Your task to perform on an android device: View the shopping cart on target.com. Search for macbook pro 13 inch on target.com, select the first entry, and add it to the cart. Image 0: 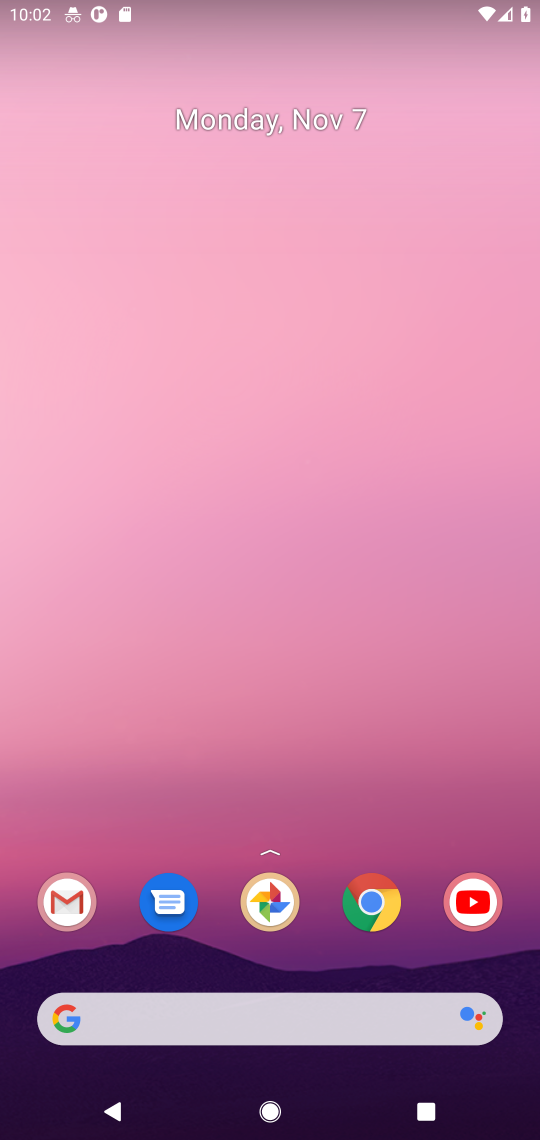
Step 0: click (382, 911)
Your task to perform on an android device: View the shopping cart on target.com. Search for macbook pro 13 inch on target.com, select the first entry, and add it to the cart. Image 1: 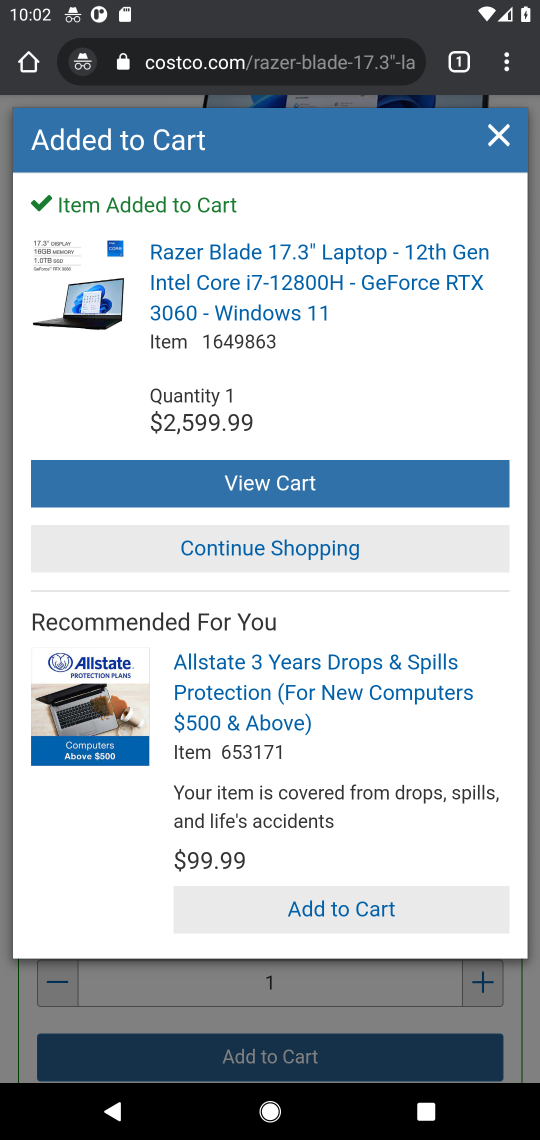
Step 1: click (274, 68)
Your task to perform on an android device: View the shopping cart on target.com. Search for macbook pro 13 inch on target.com, select the first entry, and add it to the cart. Image 2: 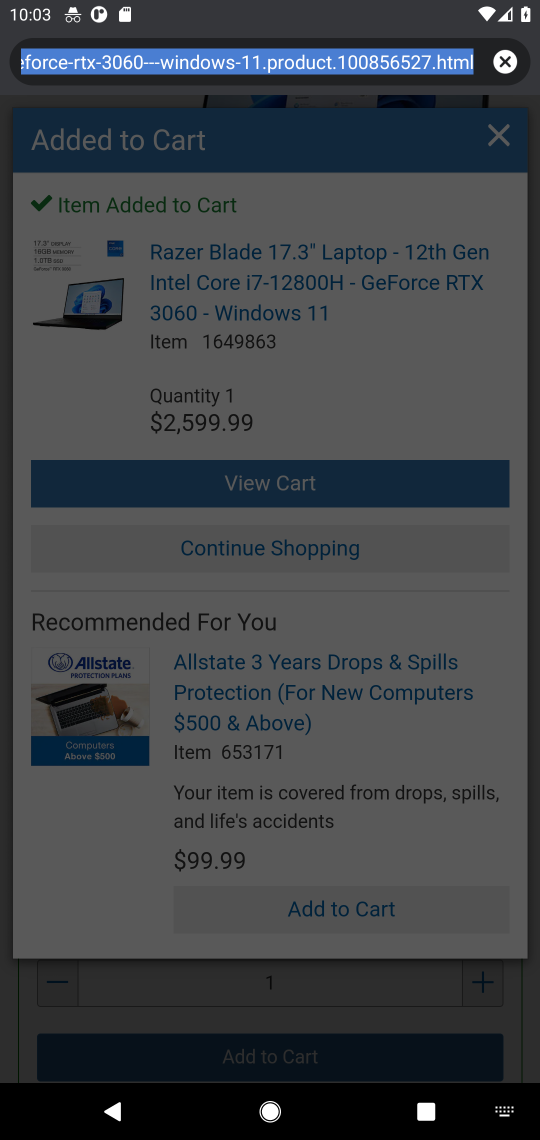
Step 2: type "target.com"
Your task to perform on an android device: View the shopping cart on target.com. Search for macbook pro 13 inch on target.com, select the first entry, and add it to the cart. Image 3: 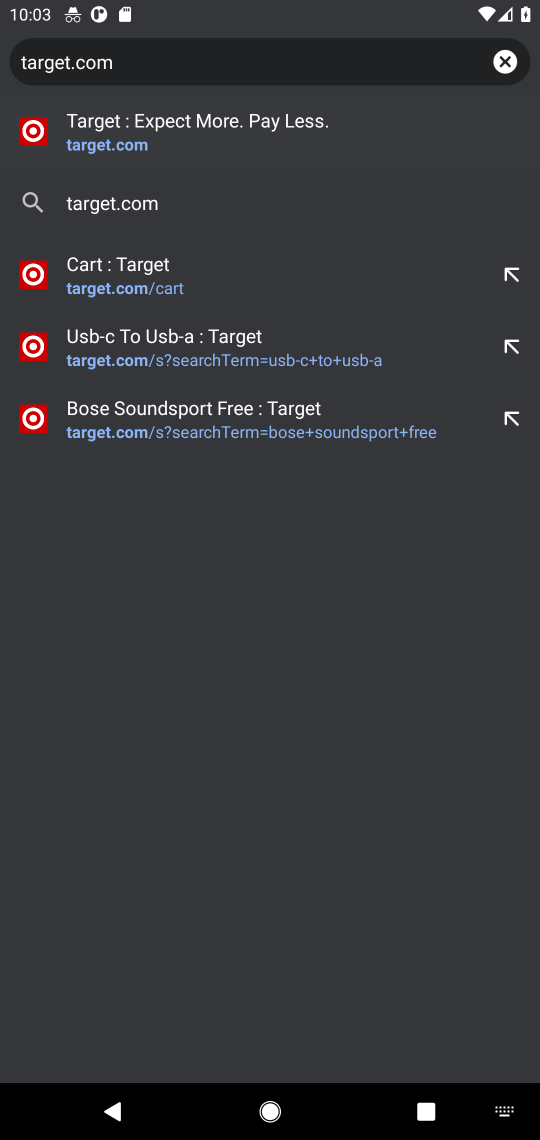
Step 3: click (96, 144)
Your task to perform on an android device: View the shopping cart on target.com. Search for macbook pro 13 inch on target.com, select the first entry, and add it to the cart. Image 4: 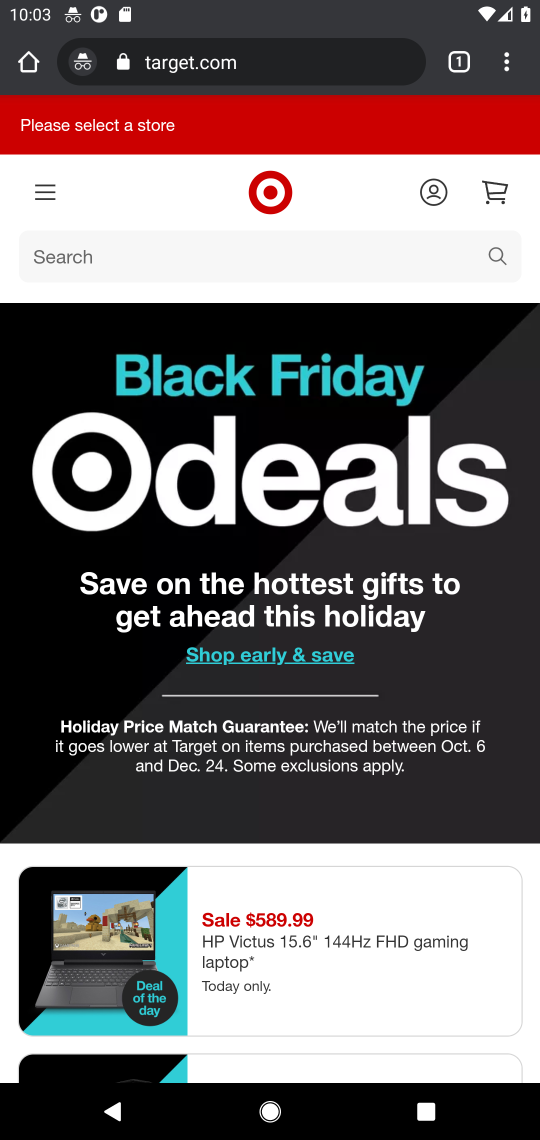
Step 4: click (489, 190)
Your task to perform on an android device: View the shopping cart on target.com. Search for macbook pro 13 inch on target.com, select the first entry, and add it to the cart. Image 5: 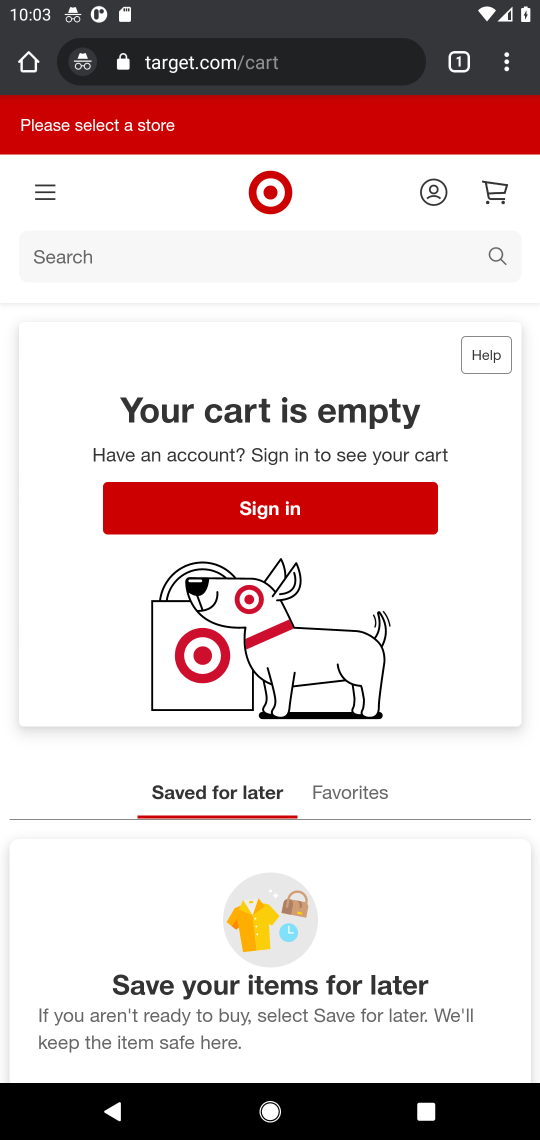
Step 5: click (500, 258)
Your task to perform on an android device: View the shopping cart on target.com. Search for macbook pro 13 inch on target.com, select the first entry, and add it to the cart. Image 6: 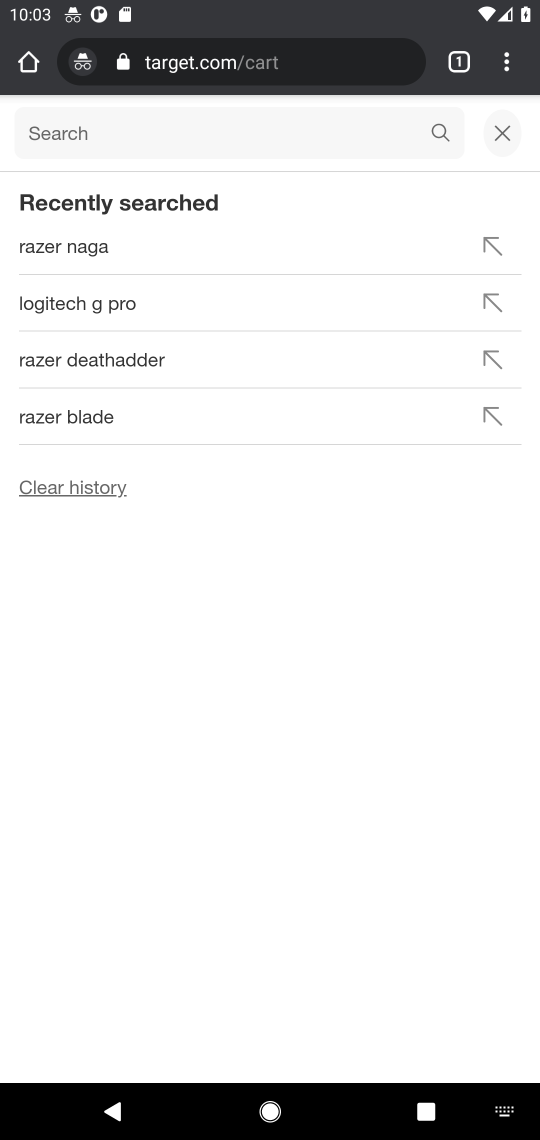
Step 6: type " macbook pro 13 inch"
Your task to perform on an android device: View the shopping cart on target.com. Search for macbook pro 13 inch on target.com, select the first entry, and add it to the cart. Image 7: 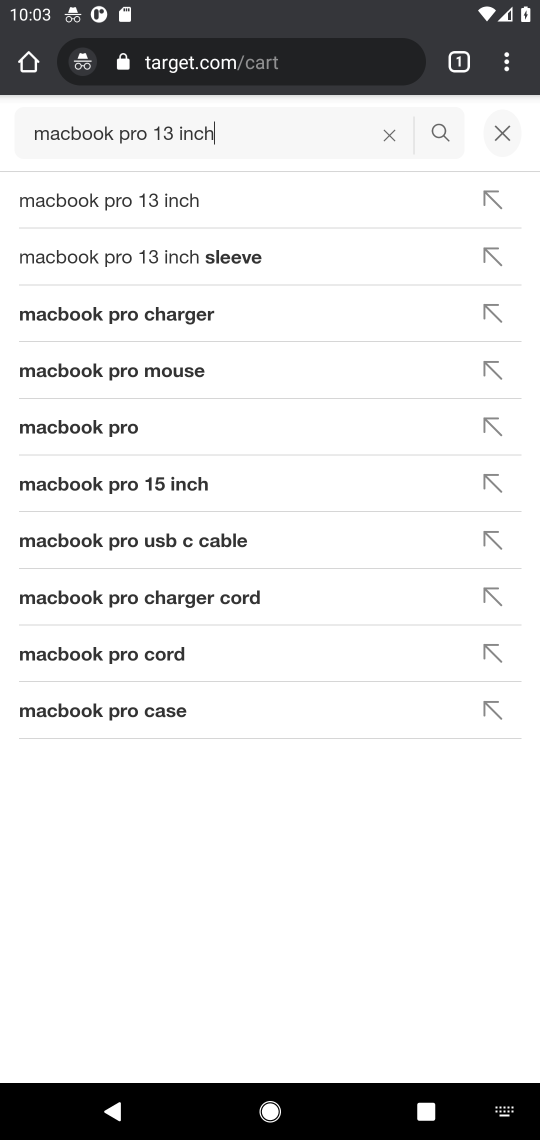
Step 7: click (160, 210)
Your task to perform on an android device: View the shopping cart on target.com. Search for macbook pro 13 inch on target.com, select the first entry, and add it to the cart. Image 8: 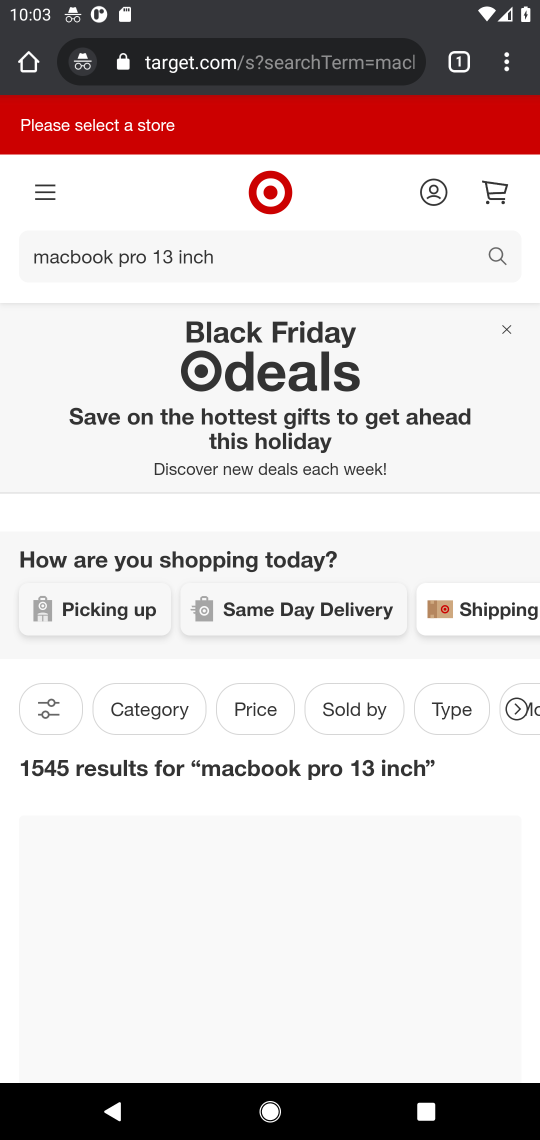
Step 8: drag from (227, 883) to (201, 456)
Your task to perform on an android device: View the shopping cart on target.com. Search for macbook pro 13 inch on target.com, select the first entry, and add it to the cart. Image 9: 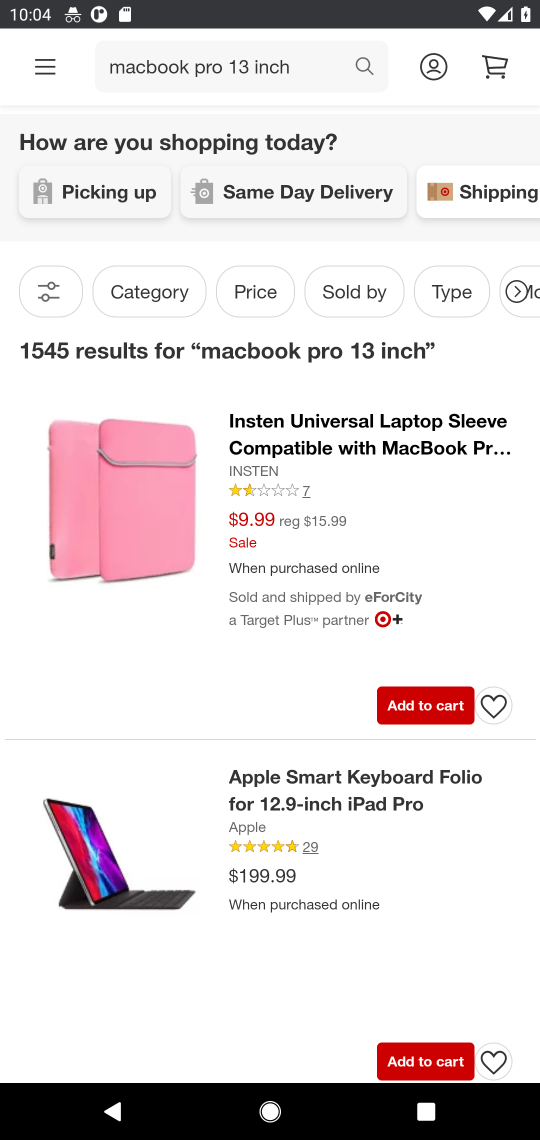
Step 9: click (165, 514)
Your task to perform on an android device: View the shopping cart on target.com. Search for macbook pro 13 inch on target.com, select the first entry, and add it to the cart. Image 10: 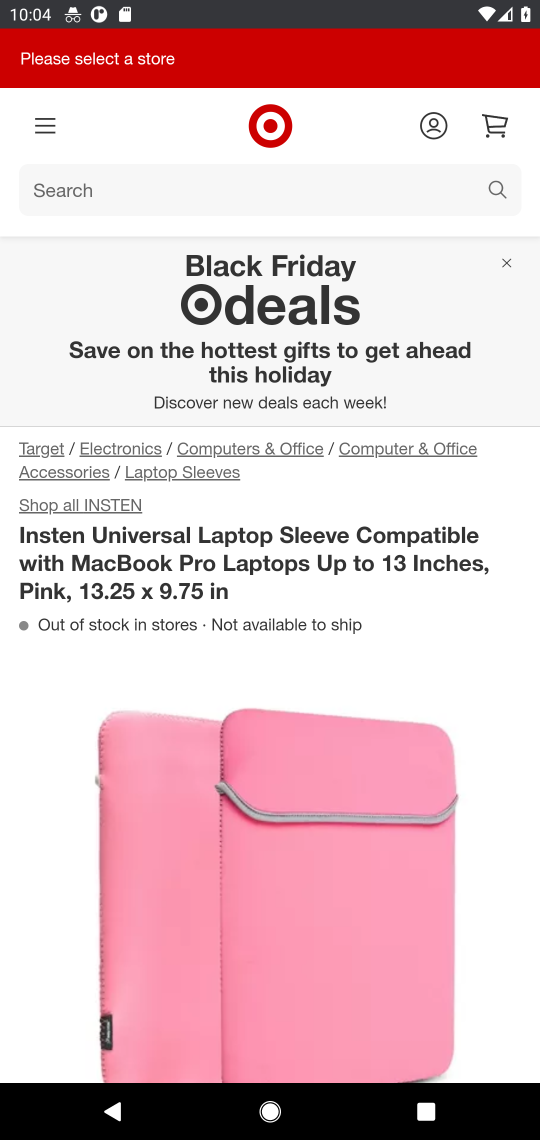
Step 10: drag from (188, 790) to (183, 555)
Your task to perform on an android device: View the shopping cart on target.com. Search for macbook pro 13 inch on target.com, select the first entry, and add it to the cart. Image 11: 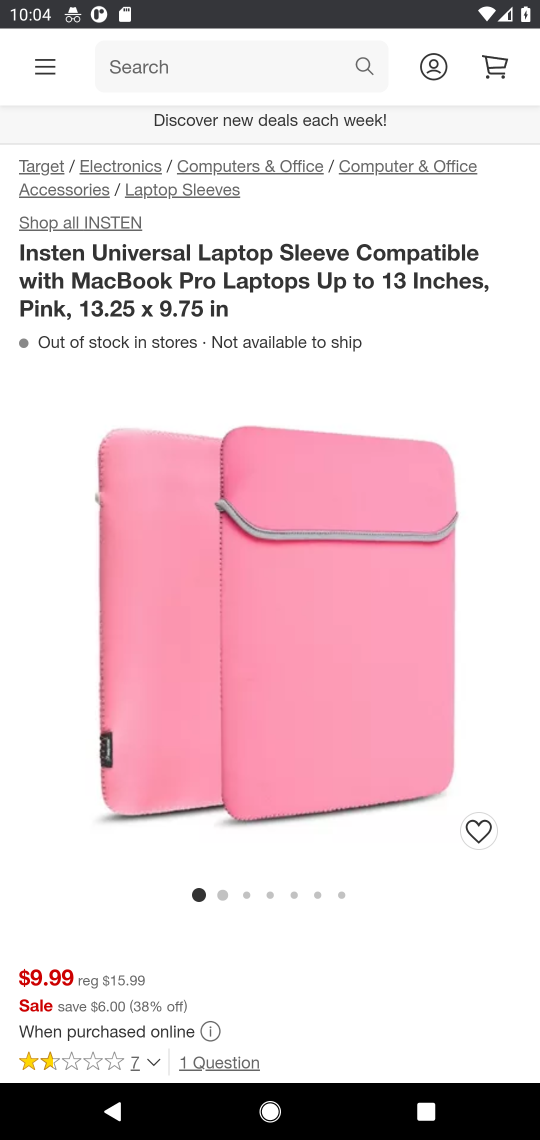
Step 11: drag from (223, 910) to (220, 647)
Your task to perform on an android device: View the shopping cart on target.com. Search for macbook pro 13 inch on target.com, select the first entry, and add it to the cart. Image 12: 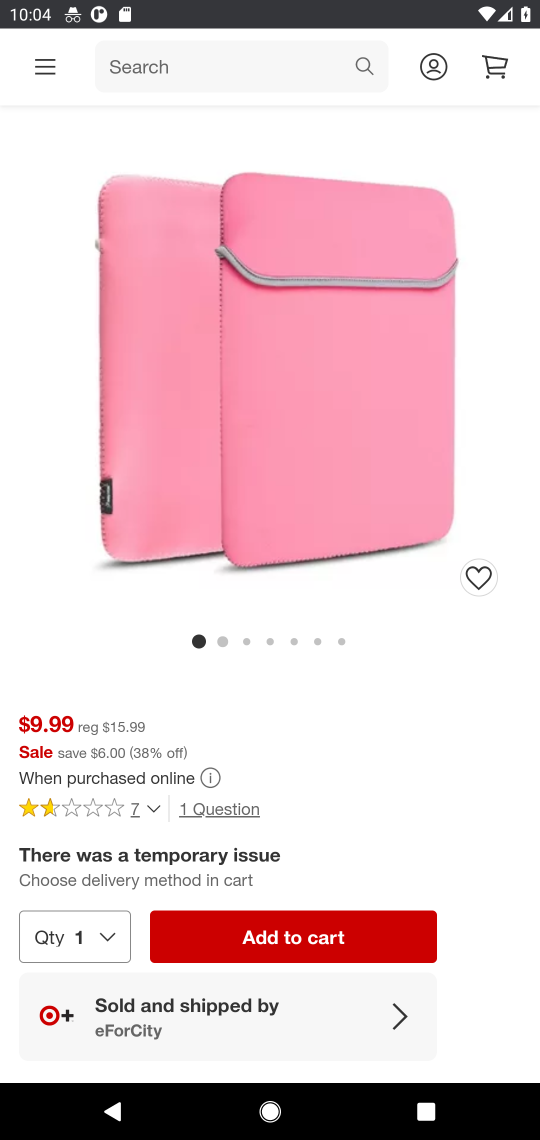
Step 12: drag from (264, 454) to (262, 835)
Your task to perform on an android device: View the shopping cart on target.com. Search for macbook pro 13 inch on target.com, select the first entry, and add it to the cart. Image 13: 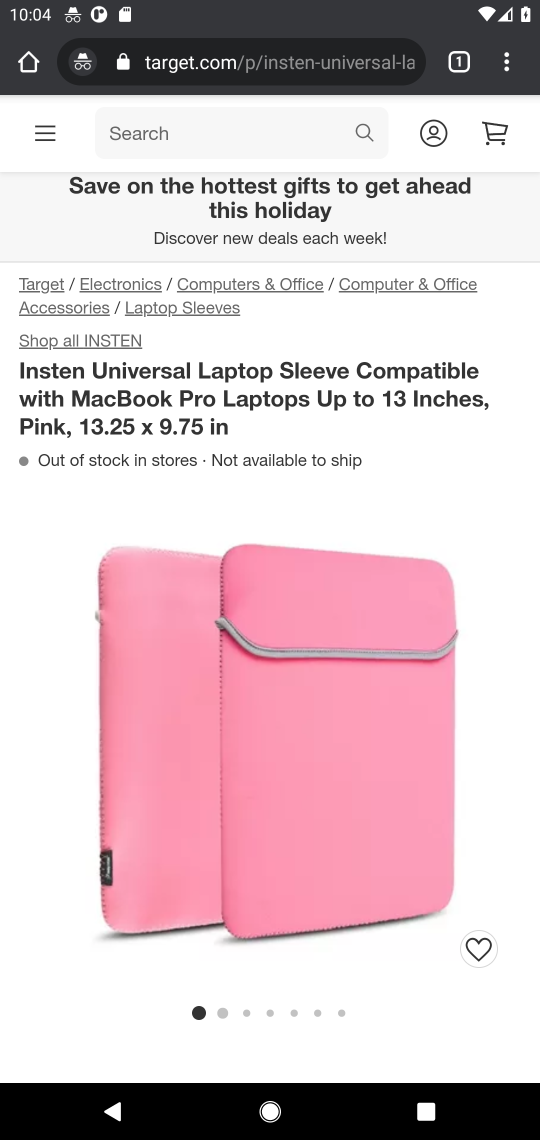
Step 13: drag from (262, 835) to (271, 698)
Your task to perform on an android device: View the shopping cart on target.com. Search for macbook pro 13 inch on target.com, select the first entry, and add it to the cart. Image 14: 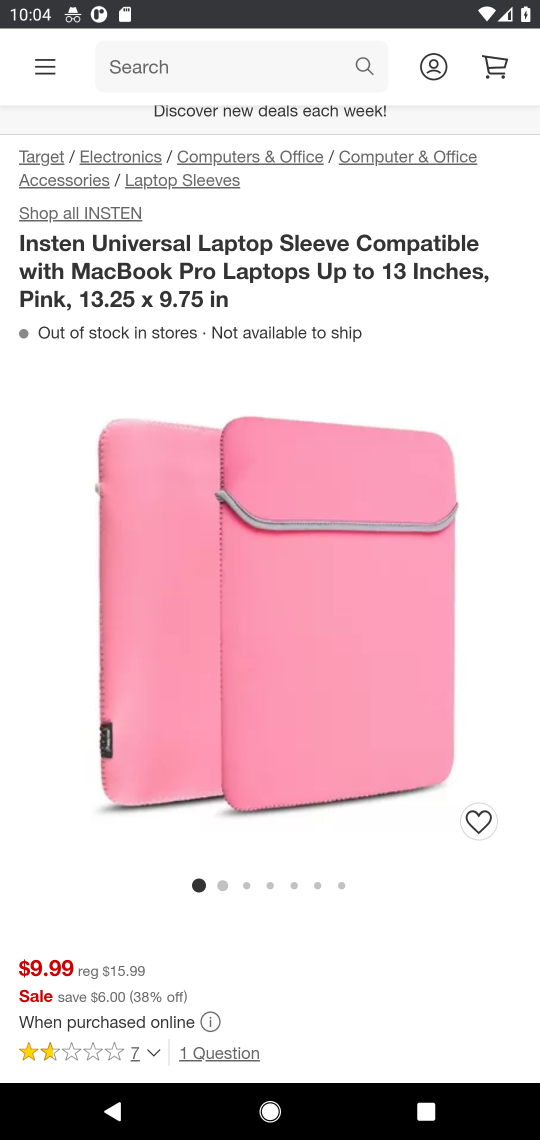
Step 14: drag from (271, 709) to (260, 534)
Your task to perform on an android device: View the shopping cart on target.com. Search for macbook pro 13 inch on target.com, select the first entry, and add it to the cart. Image 15: 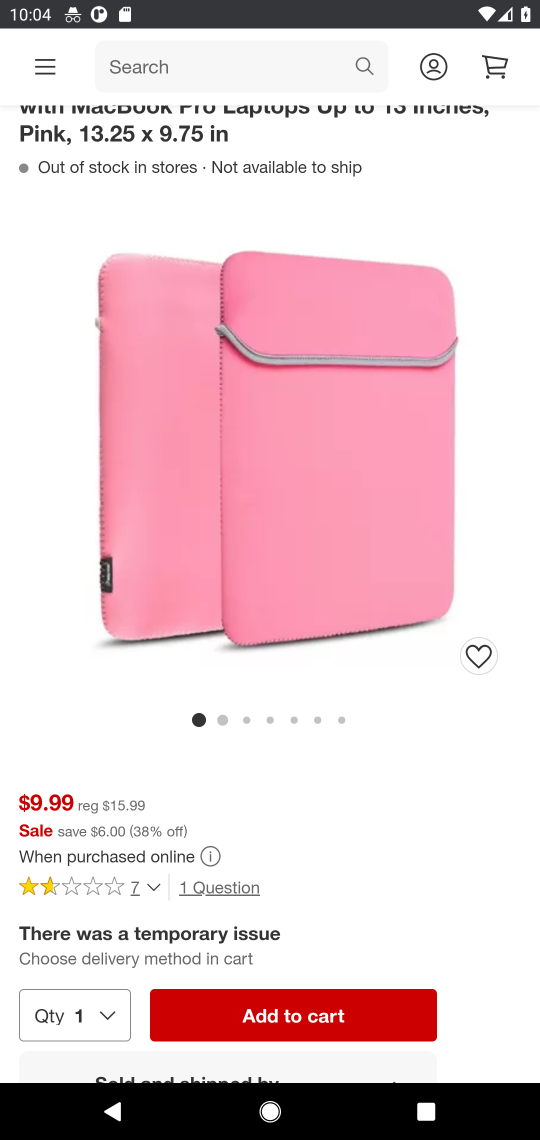
Step 15: click (287, 1016)
Your task to perform on an android device: View the shopping cart on target.com. Search for macbook pro 13 inch on target.com, select the first entry, and add it to the cart. Image 16: 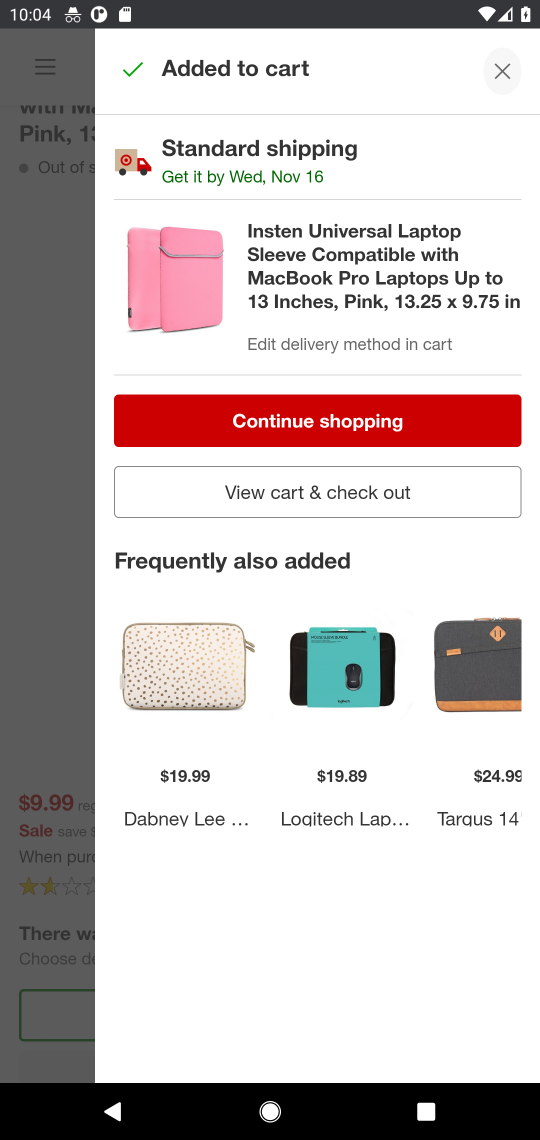
Step 16: task complete